Your task to perform on an android device: Open settings on Google Maps Image 0: 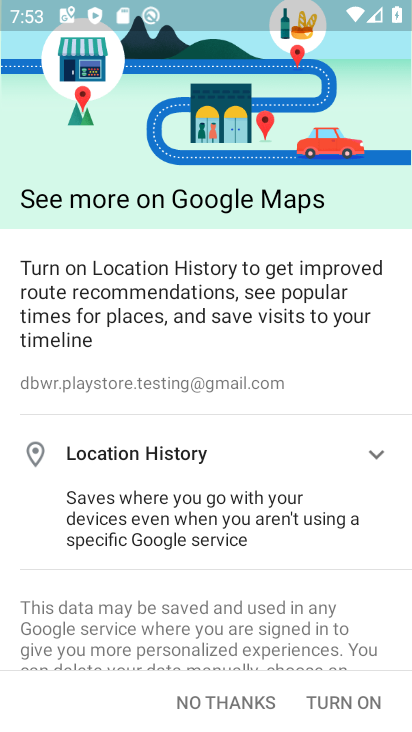
Step 0: click (252, 693)
Your task to perform on an android device: Open settings on Google Maps Image 1: 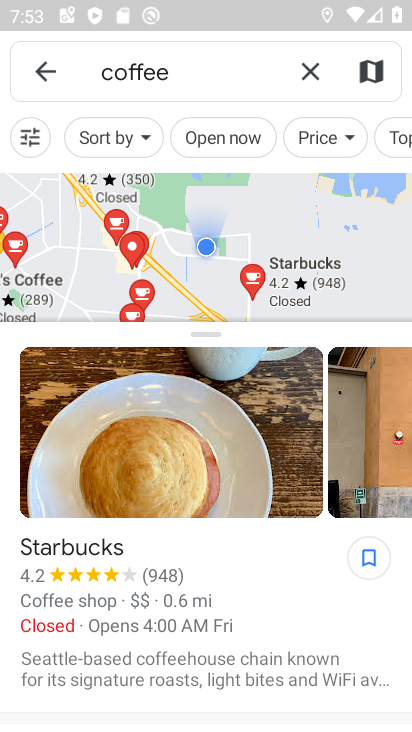
Step 1: click (39, 69)
Your task to perform on an android device: Open settings on Google Maps Image 2: 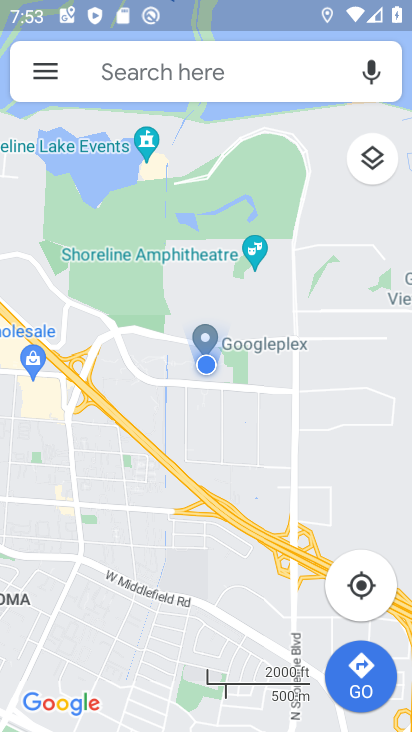
Step 2: click (39, 67)
Your task to perform on an android device: Open settings on Google Maps Image 3: 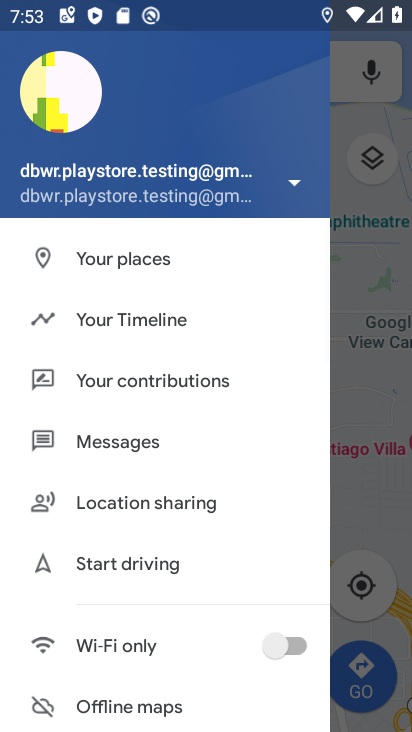
Step 3: drag from (194, 507) to (146, 223)
Your task to perform on an android device: Open settings on Google Maps Image 4: 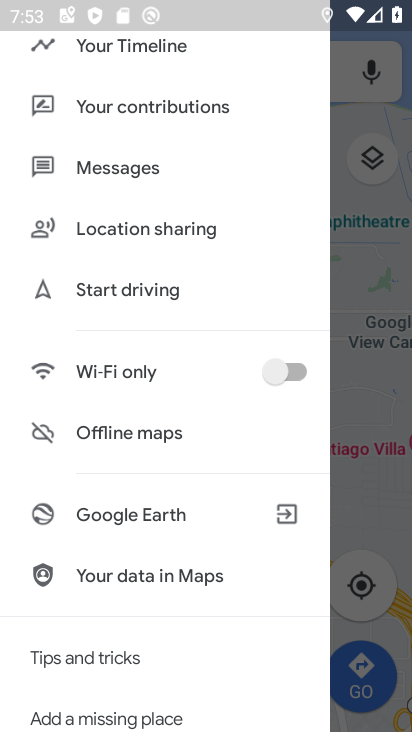
Step 4: drag from (173, 435) to (168, 129)
Your task to perform on an android device: Open settings on Google Maps Image 5: 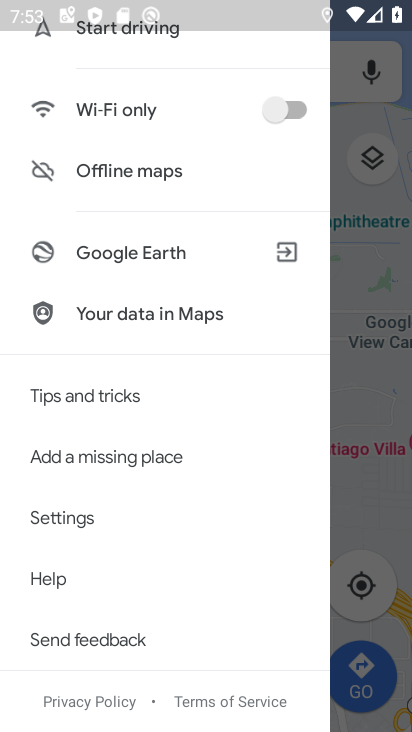
Step 5: click (107, 521)
Your task to perform on an android device: Open settings on Google Maps Image 6: 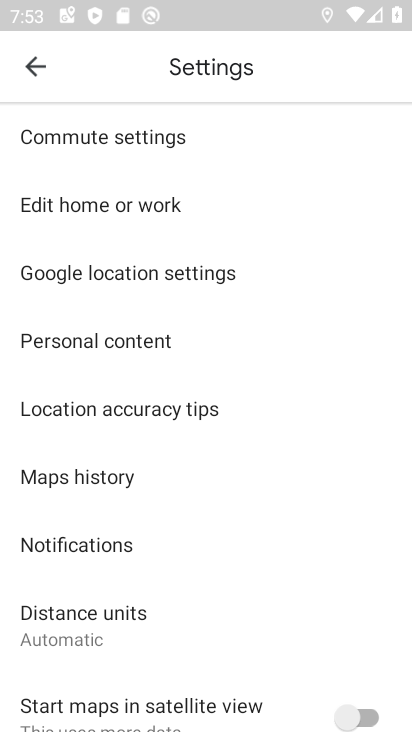
Step 6: task complete